Your task to perform on an android device: Go to Reddit.com Image 0: 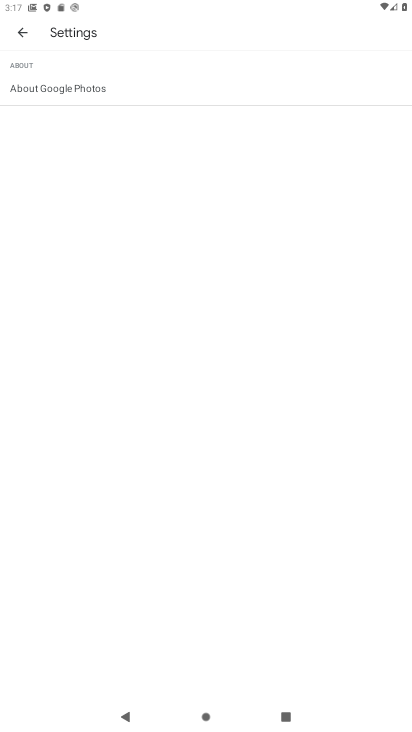
Step 0: press home button
Your task to perform on an android device: Go to Reddit.com Image 1: 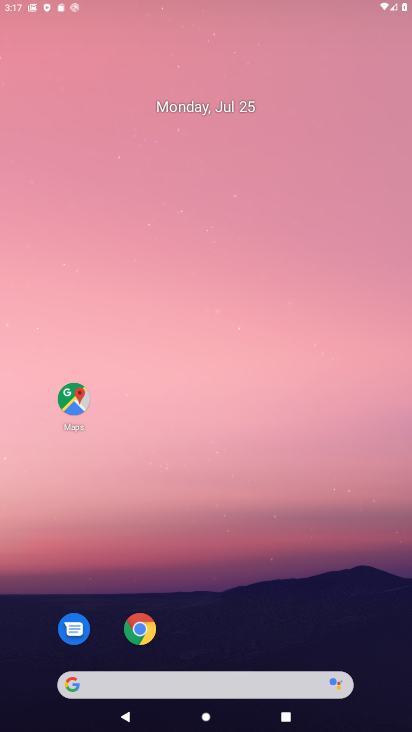
Step 1: drag from (253, 608) to (230, 2)
Your task to perform on an android device: Go to Reddit.com Image 2: 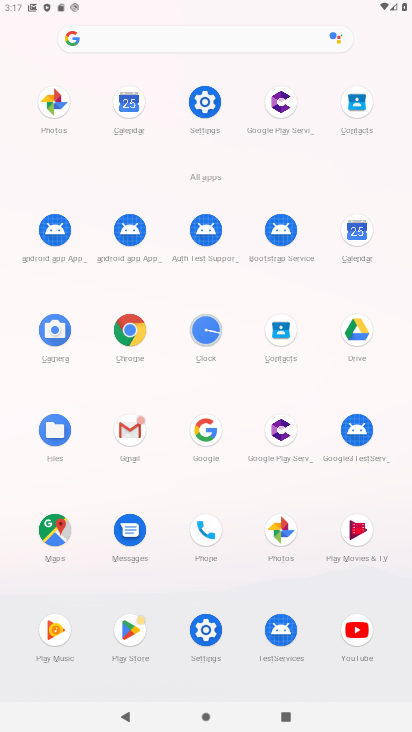
Step 2: click (127, 332)
Your task to perform on an android device: Go to Reddit.com Image 3: 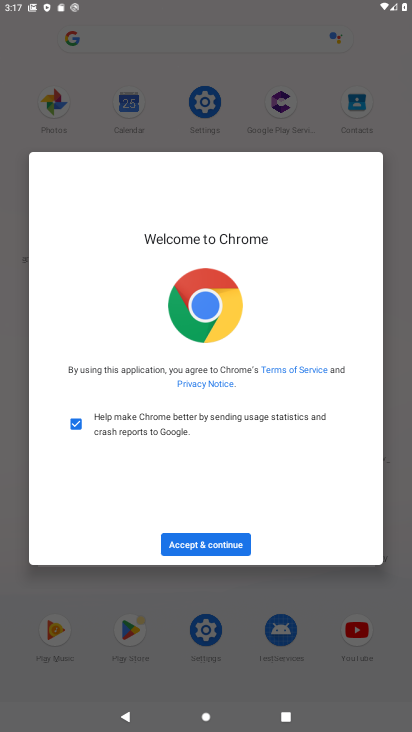
Step 3: type "reddit"
Your task to perform on an android device: Go to Reddit.com Image 4: 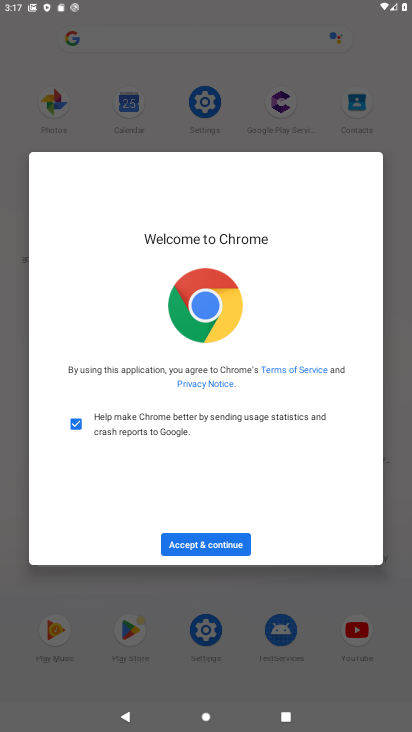
Step 4: click (178, 545)
Your task to perform on an android device: Go to Reddit.com Image 5: 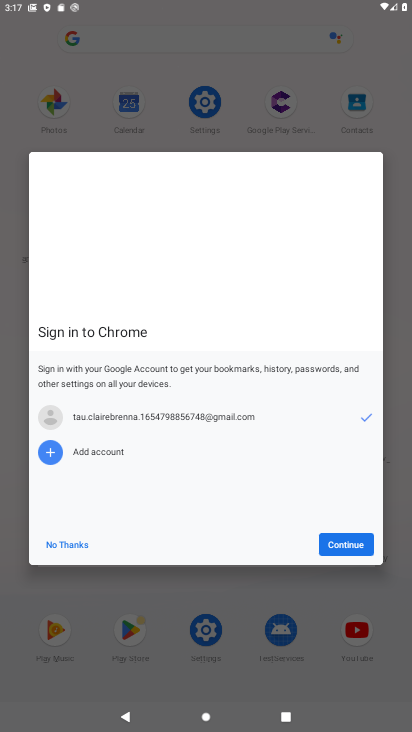
Step 5: click (46, 538)
Your task to perform on an android device: Go to Reddit.com Image 6: 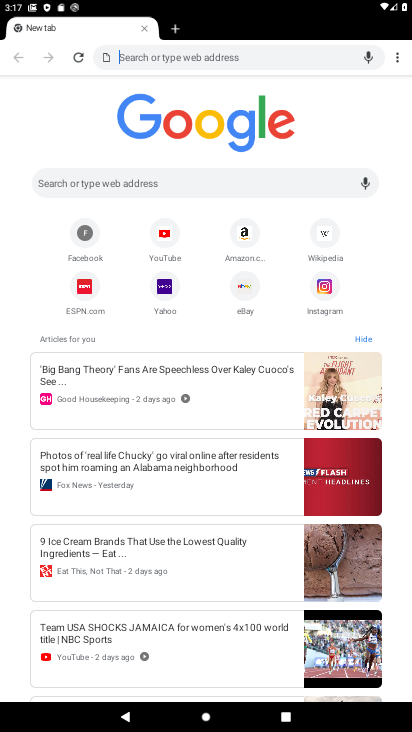
Step 6: click (288, 183)
Your task to perform on an android device: Go to Reddit.com Image 7: 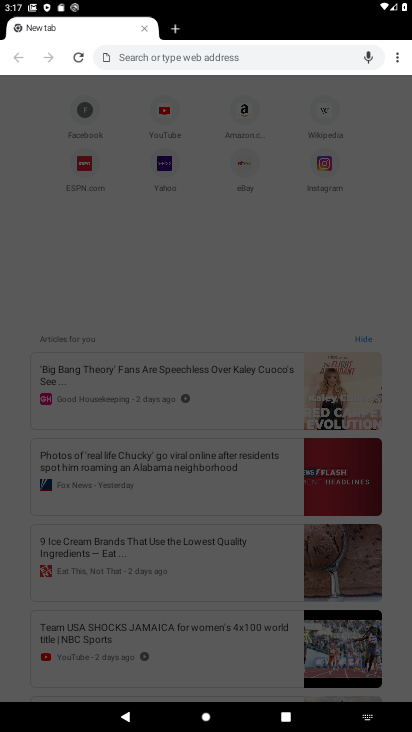
Step 7: type "reddit.com"
Your task to perform on an android device: Go to Reddit.com Image 8: 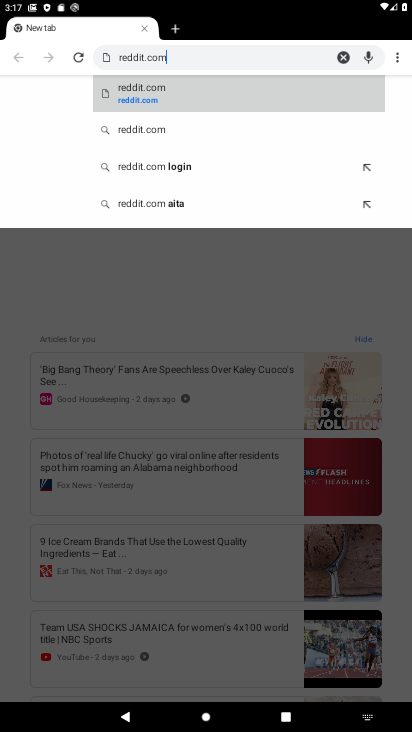
Step 8: click (219, 91)
Your task to perform on an android device: Go to Reddit.com Image 9: 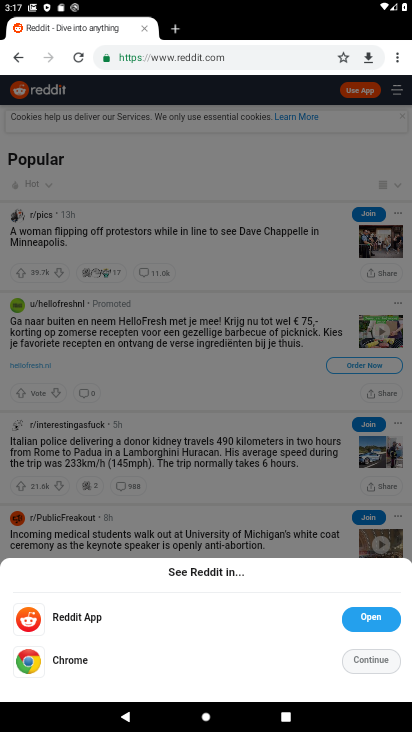
Step 9: task complete